Your task to perform on an android device: Open Amazon Image 0: 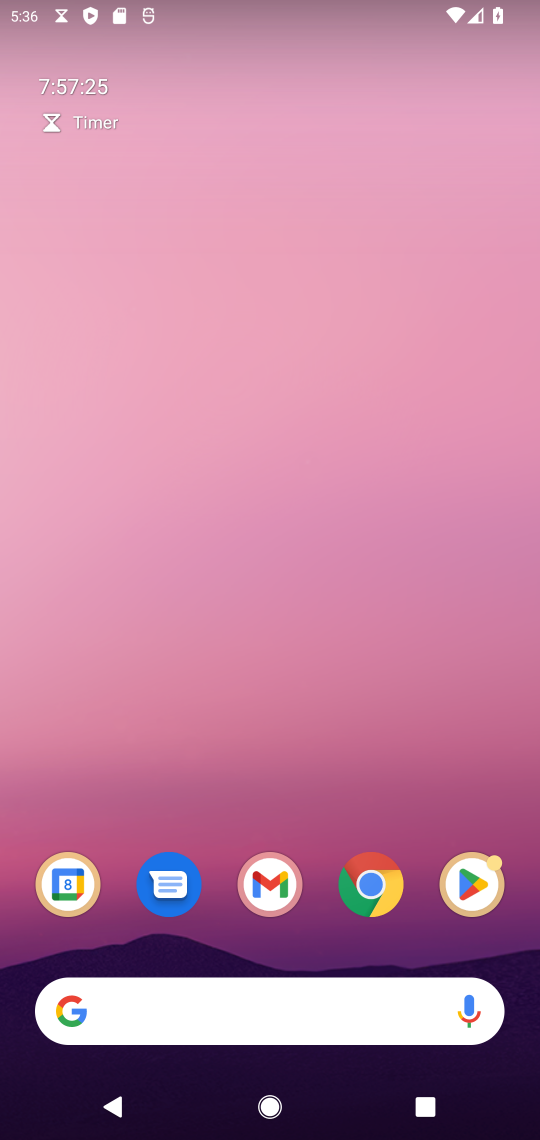
Step 0: click (388, 886)
Your task to perform on an android device: Open Amazon Image 1: 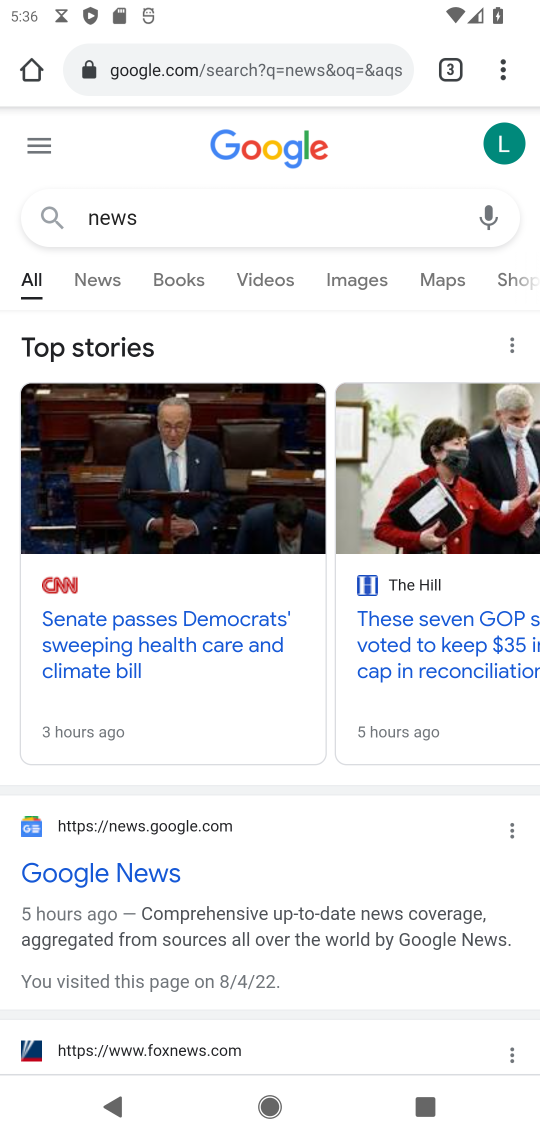
Step 1: click (452, 71)
Your task to perform on an android device: Open Amazon Image 2: 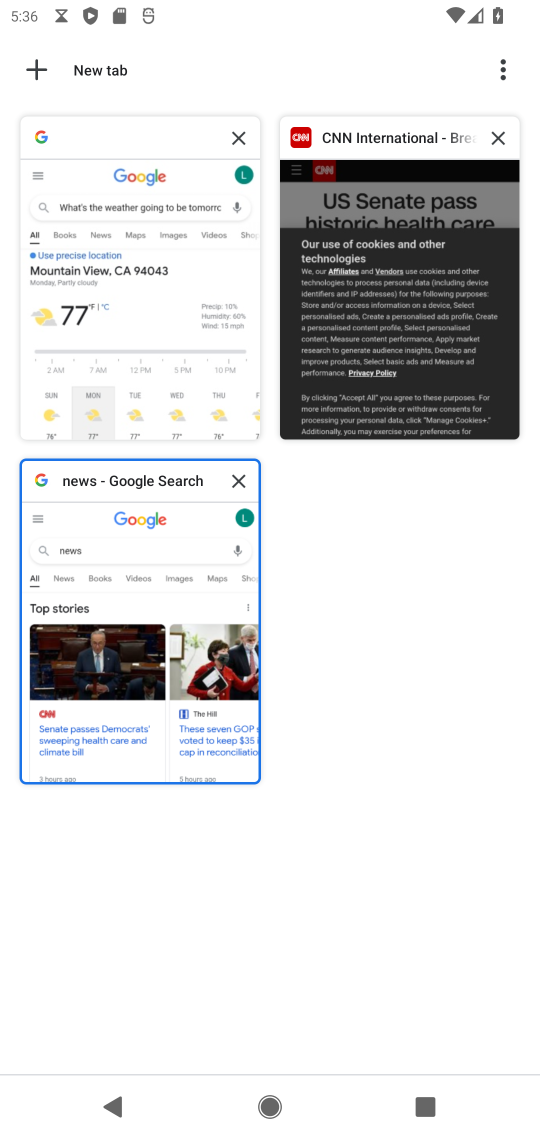
Step 2: click (108, 82)
Your task to perform on an android device: Open Amazon Image 3: 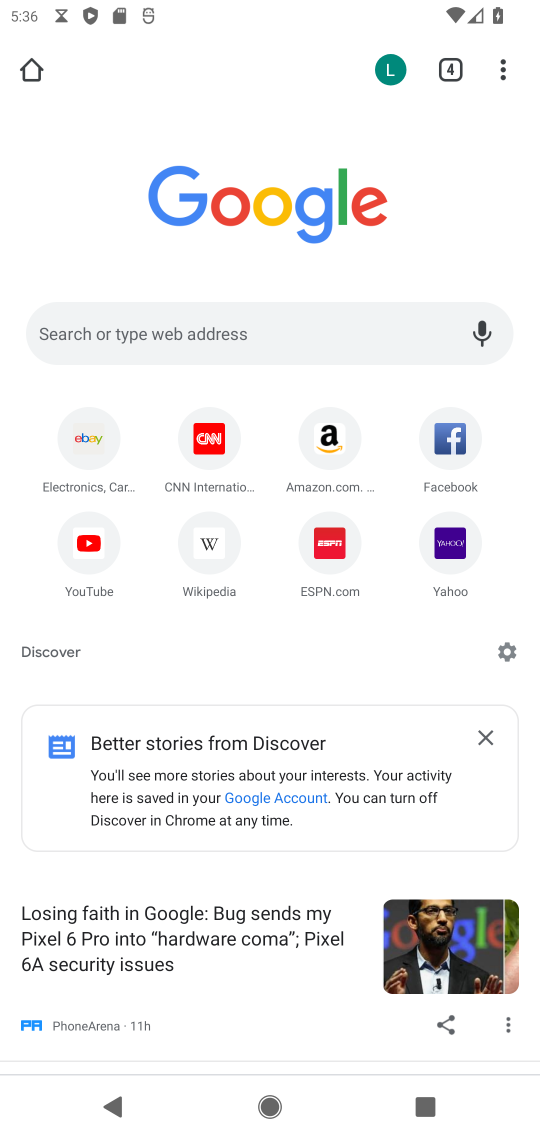
Step 3: click (319, 445)
Your task to perform on an android device: Open Amazon Image 4: 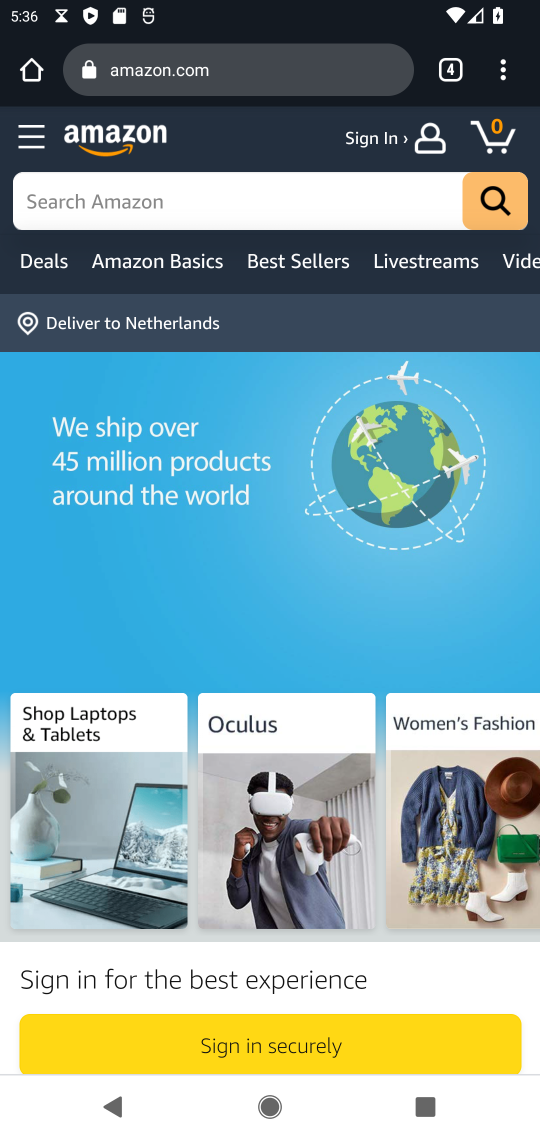
Step 4: task complete